Your task to perform on an android device: Open accessibility settings Image 0: 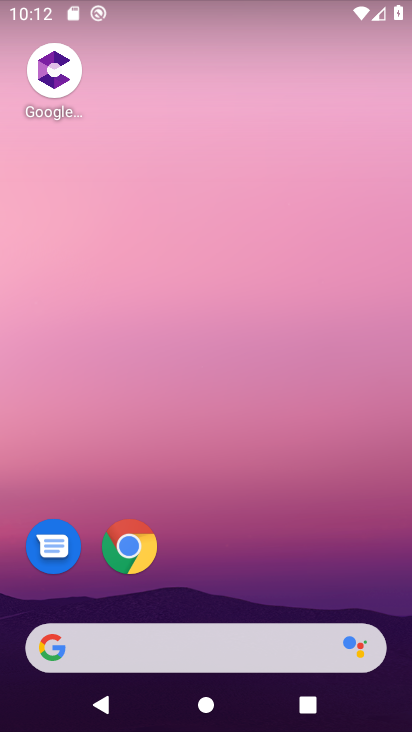
Step 0: drag from (399, 638) to (335, 106)
Your task to perform on an android device: Open accessibility settings Image 1: 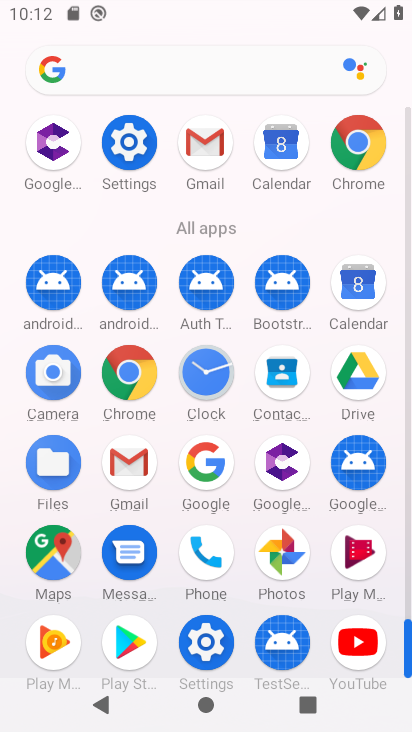
Step 1: click (200, 644)
Your task to perform on an android device: Open accessibility settings Image 2: 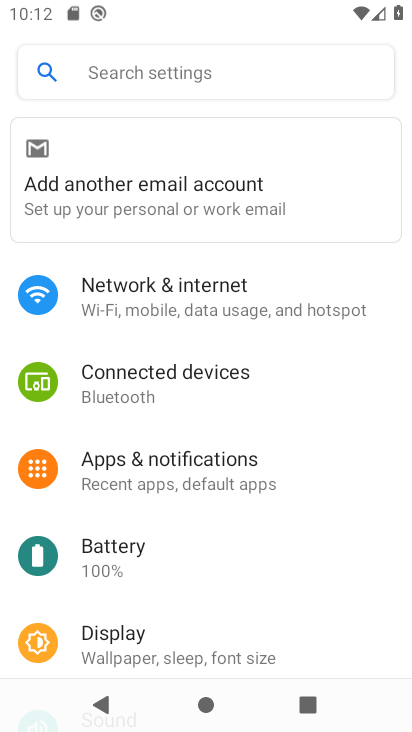
Step 2: drag from (355, 628) to (346, 85)
Your task to perform on an android device: Open accessibility settings Image 3: 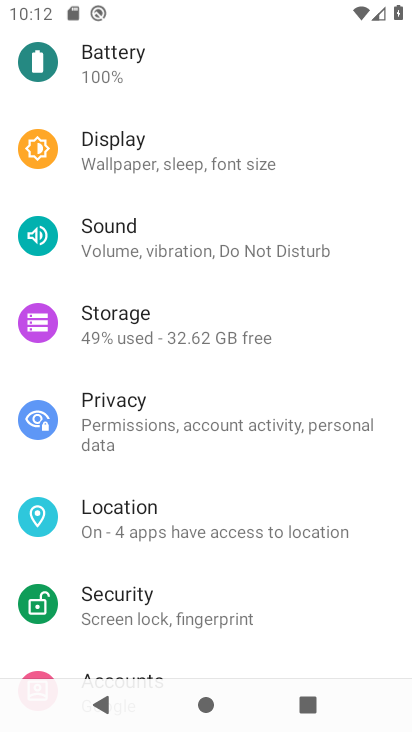
Step 3: drag from (348, 583) to (331, 67)
Your task to perform on an android device: Open accessibility settings Image 4: 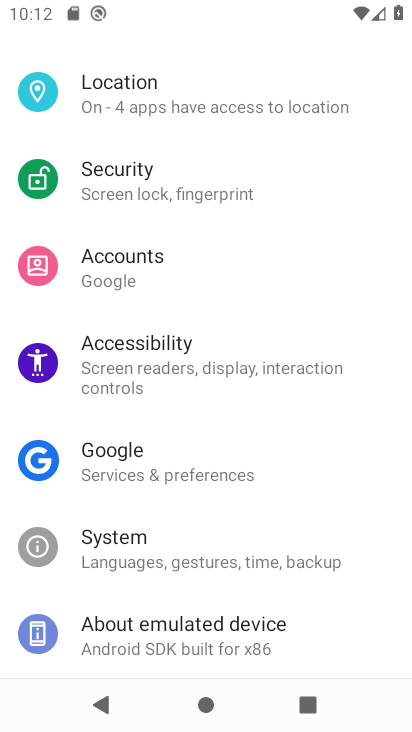
Step 4: click (96, 353)
Your task to perform on an android device: Open accessibility settings Image 5: 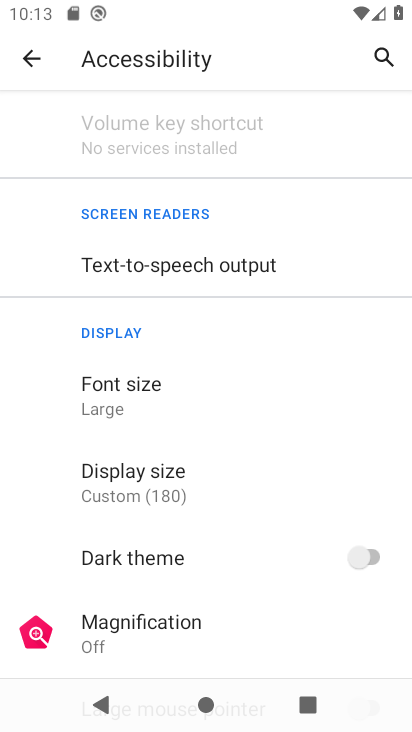
Step 5: task complete